Your task to perform on an android device: toggle improve location accuracy Image 0: 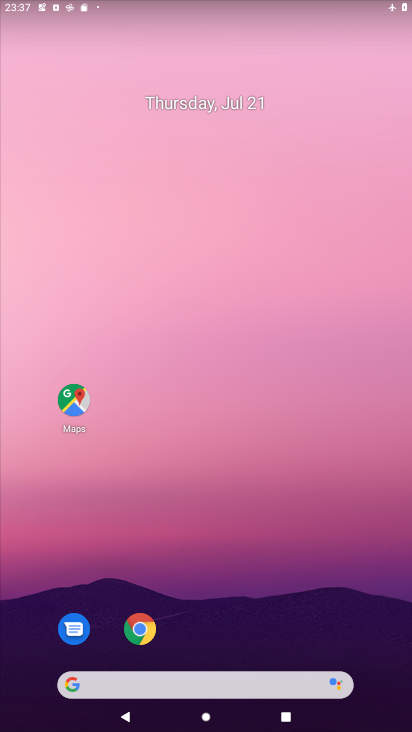
Step 0: drag from (263, 573) to (324, 134)
Your task to perform on an android device: toggle improve location accuracy Image 1: 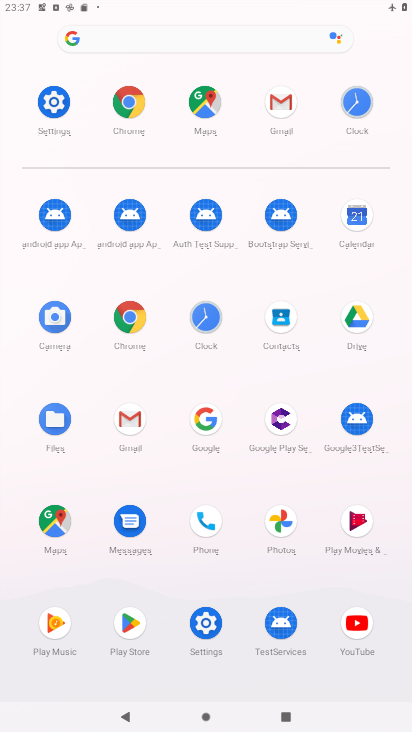
Step 1: click (208, 617)
Your task to perform on an android device: toggle improve location accuracy Image 2: 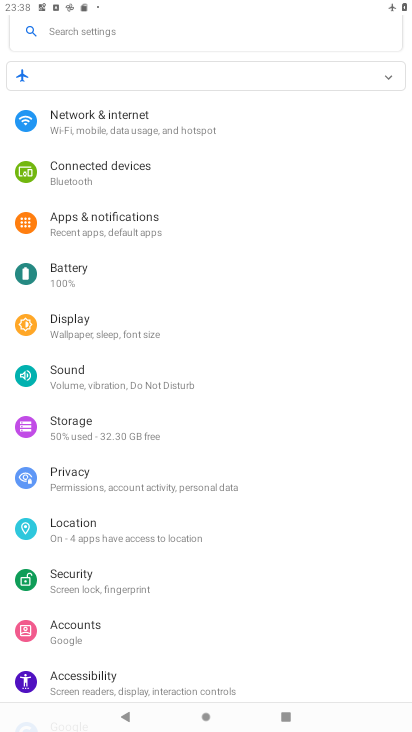
Step 2: click (154, 527)
Your task to perform on an android device: toggle improve location accuracy Image 3: 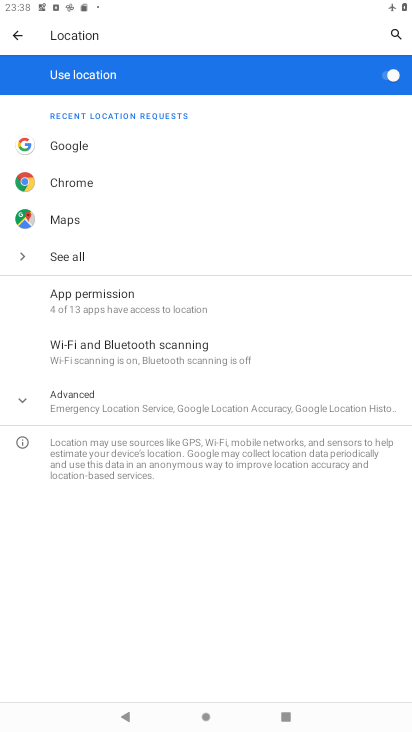
Step 3: click (168, 422)
Your task to perform on an android device: toggle improve location accuracy Image 4: 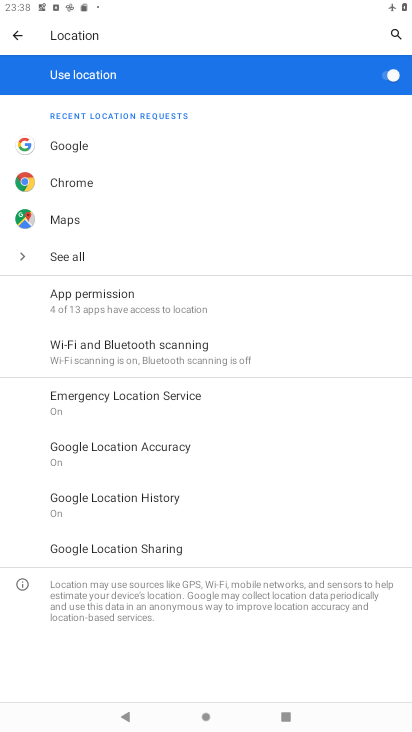
Step 4: click (183, 451)
Your task to perform on an android device: toggle improve location accuracy Image 5: 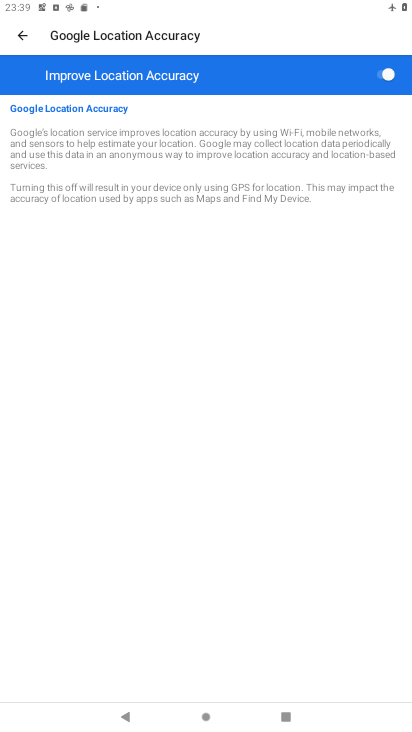
Step 5: click (392, 84)
Your task to perform on an android device: toggle improve location accuracy Image 6: 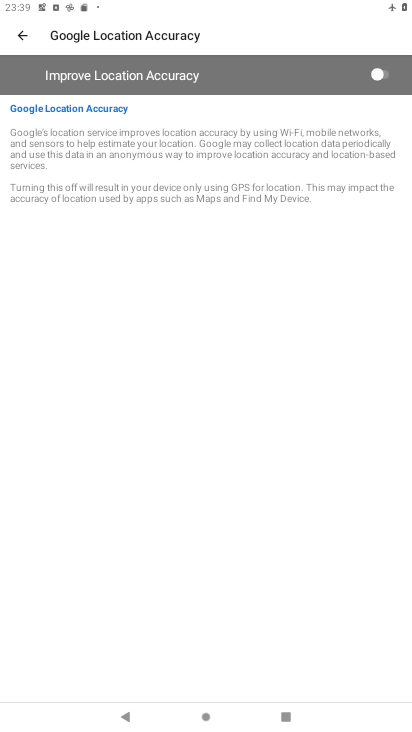
Step 6: task complete